Your task to perform on an android device: toggle show notifications on the lock screen Image 0: 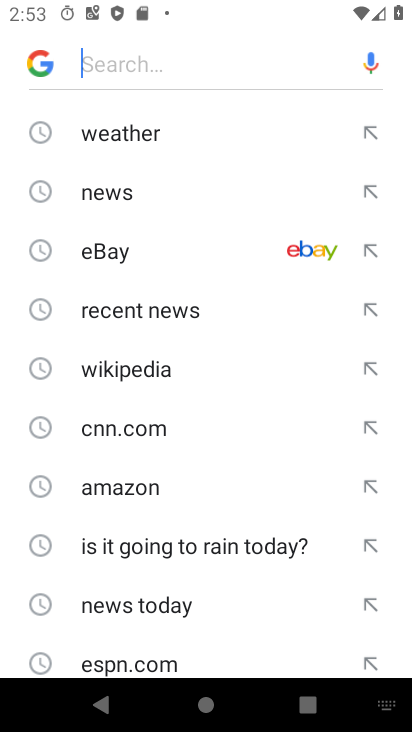
Step 0: press home button
Your task to perform on an android device: toggle show notifications on the lock screen Image 1: 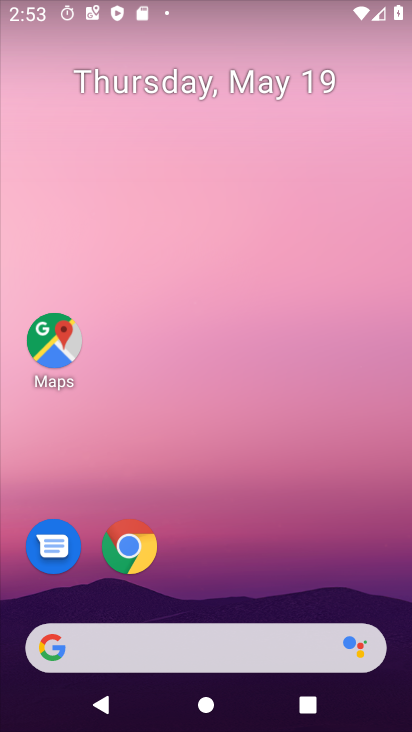
Step 1: drag from (128, 607) to (320, 18)
Your task to perform on an android device: toggle show notifications on the lock screen Image 2: 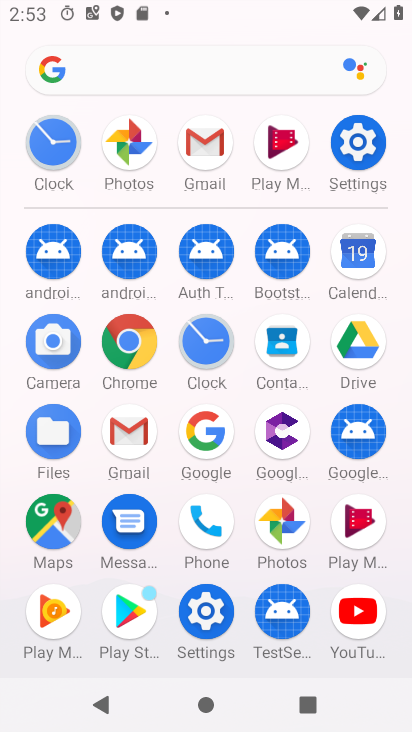
Step 2: click (364, 155)
Your task to perform on an android device: toggle show notifications on the lock screen Image 3: 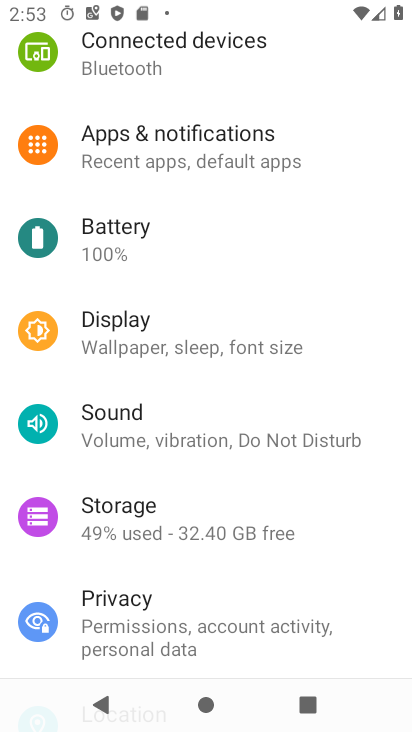
Step 3: click (144, 141)
Your task to perform on an android device: toggle show notifications on the lock screen Image 4: 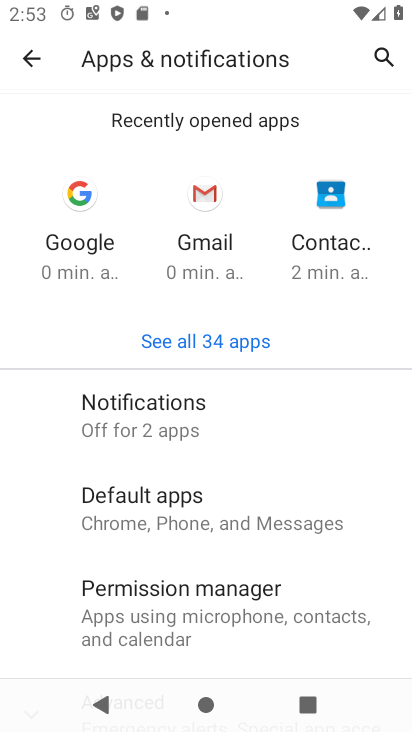
Step 4: click (144, 414)
Your task to perform on an android device: toggle show notifications on the lock screen Image 5: 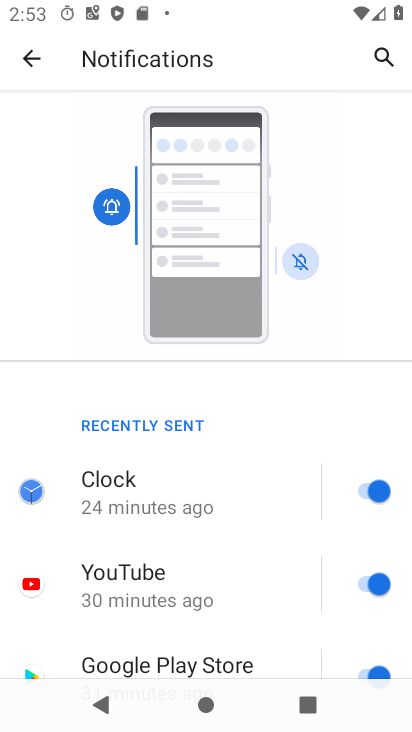
Step 5: drag from (92, 695) to (197, 159)
Your task to perform on an android device: toggle show notifications on the lock screen Image 6: 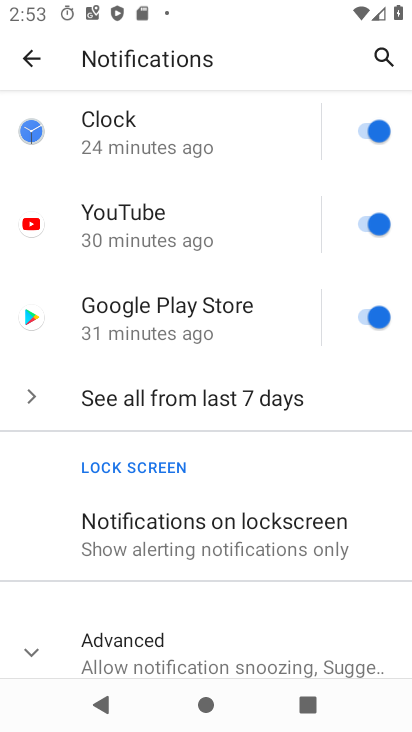
Step 6: click (161, 541)
Your task to perform on an android device: toggle show notifications on the lock screen Image 7: 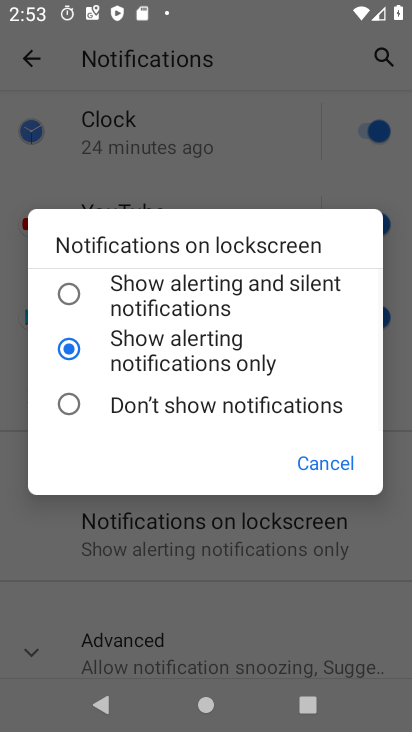
Step 7: click (183, 303)
Your task to perform on an android device: toggle show notifications on the lock screen Image 8: 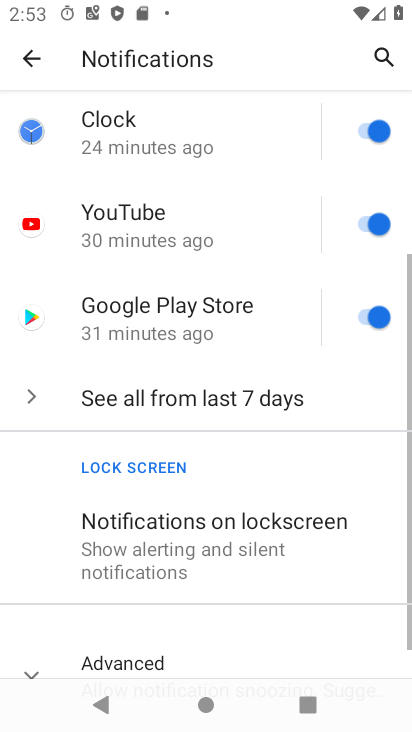
Step 8: task complete